Your task to perform on an android device: open the mobile data screen to see how much data has been used Image 0: 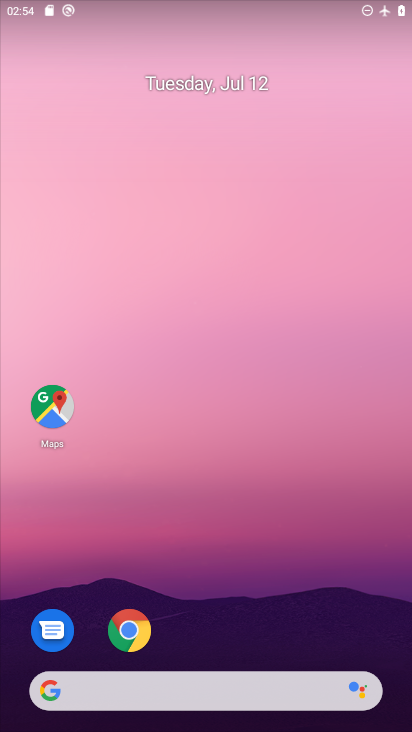
Step 0: drag from (396, 647) to (325, 161)
Your task to perform on an android device: open the mobile data screen to see how much data has been used Image 1: 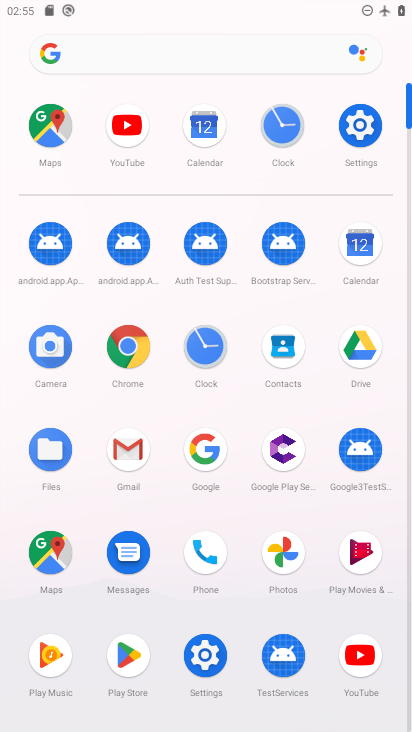
Step 1: click (205, 655)
Your task to perform on an android device: open the mobile data screen to see how much data has been used Image 2: 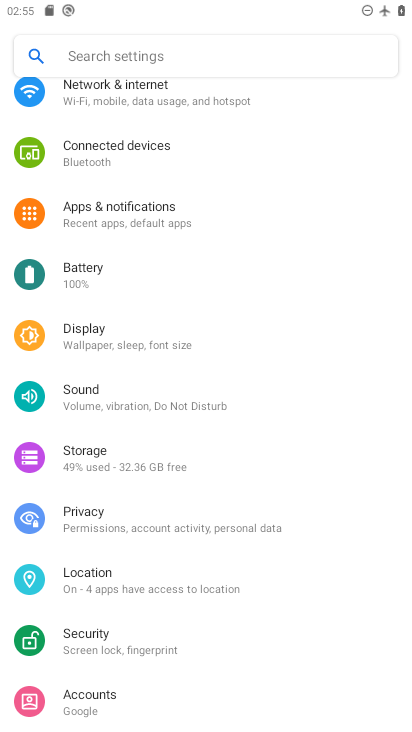
Step 2: click (120, 90)
Your task to perform on an android device: open the mobile data screen to see how much data has been used Image 3: 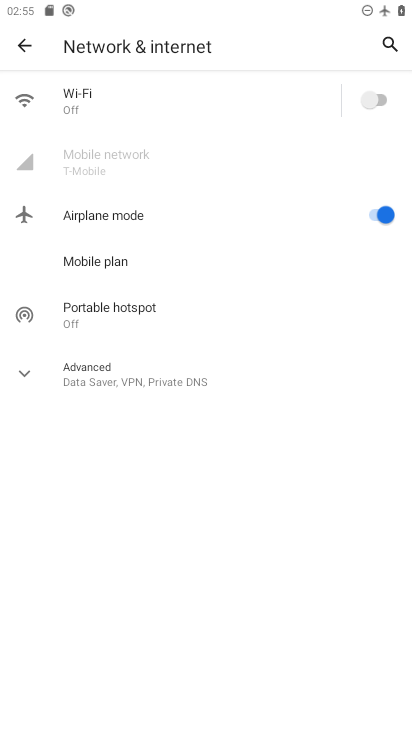
Step 3: task complete